Your task to perform on an android device: Open Google Image 0: 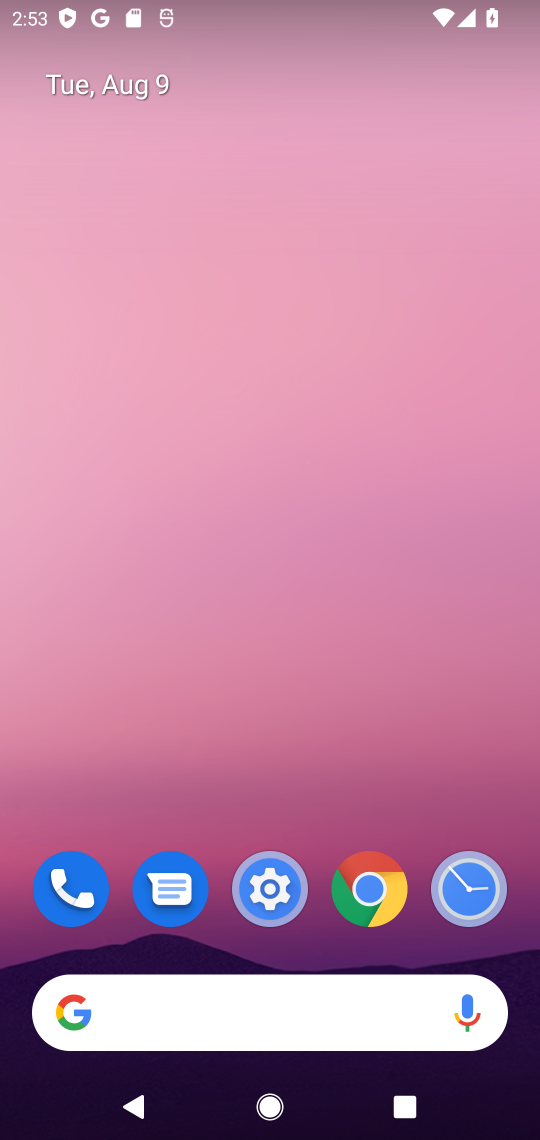
Step 0: click (333, 1023)
Your task to perform on an android device: Open Google Image 1: 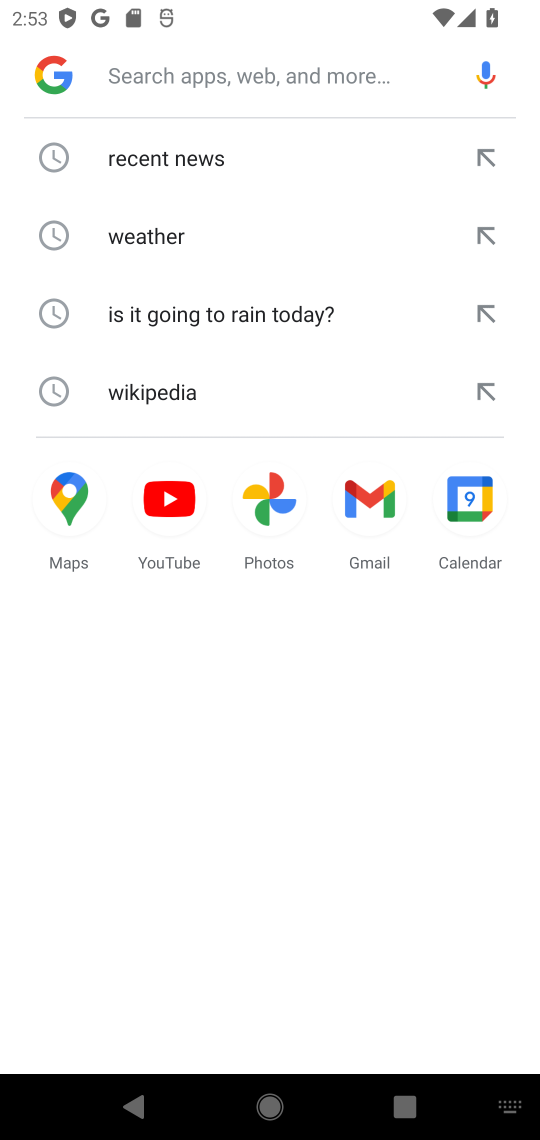
Step 1: click (64, 74)
Your task to perform on an android device: Open Google Image 2: 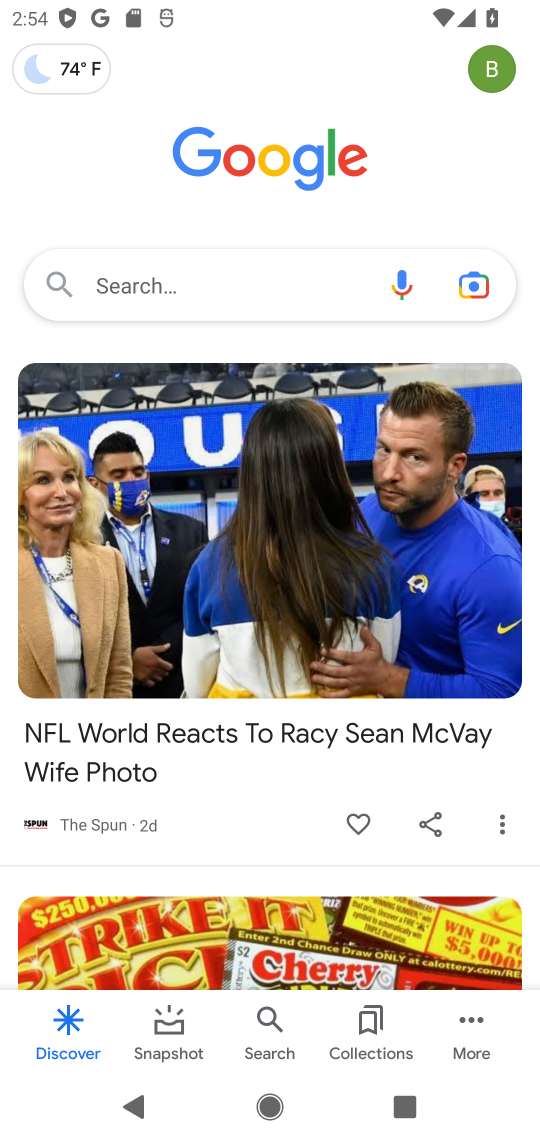
Step 2: task complete